Your task to perform on an android device: Go to sound settings Image 0: 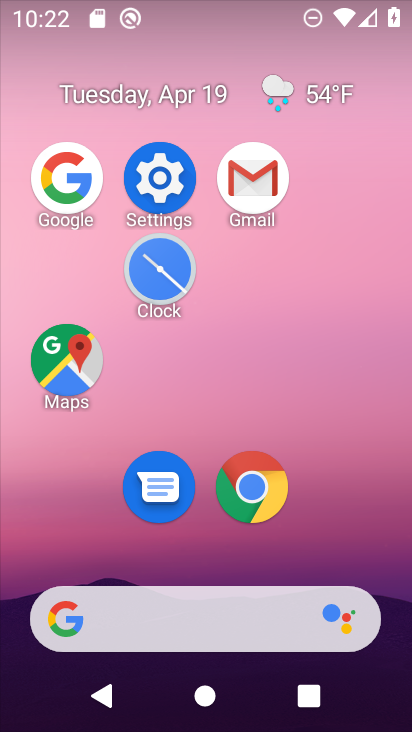
Step 0: click (159, 182)
Your task to perform on an android device: Go to sound settings Image 1: 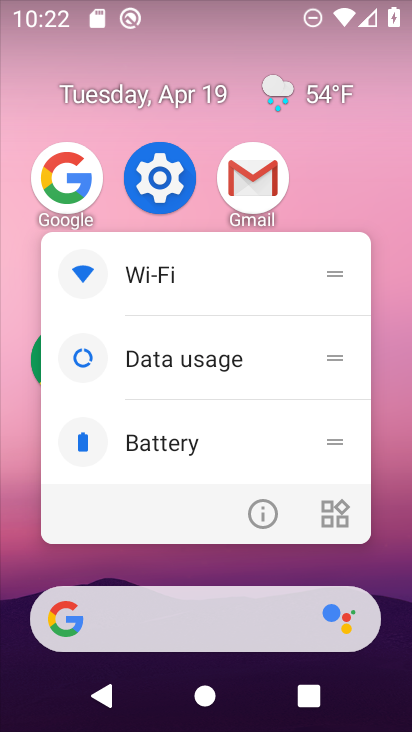
Step 1: click (159, 182)
Your task to perform on an android device: Go to sound settings Image 2: 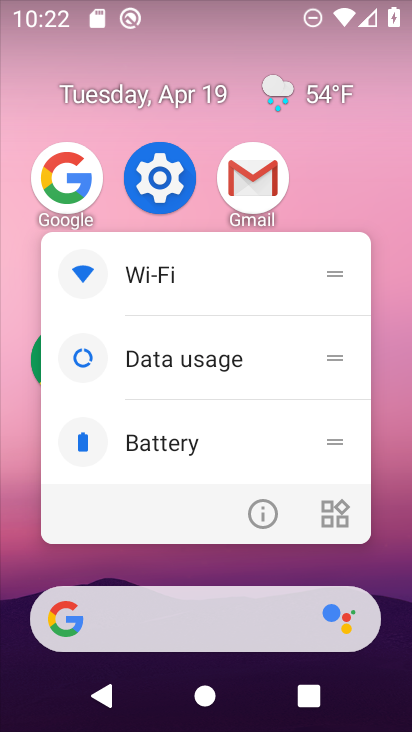
Step 2: click (159, 182)
Your task to perform on an android device: Go to sound settings Image 3: 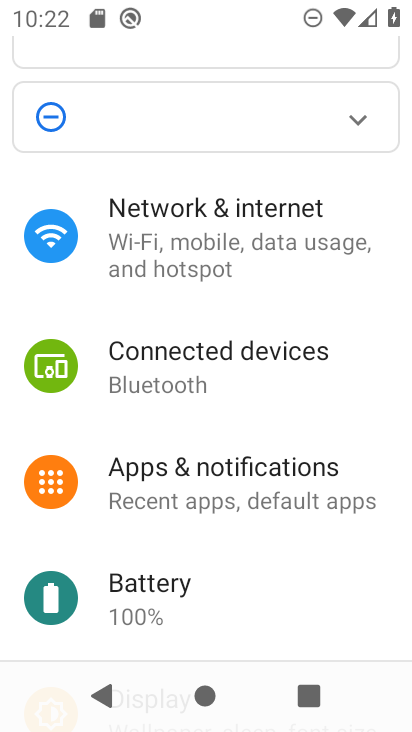
Step 3: drag from (212, 532) to (235, 203)
Your task to perform on an android device: Go to sound settings Image 4: 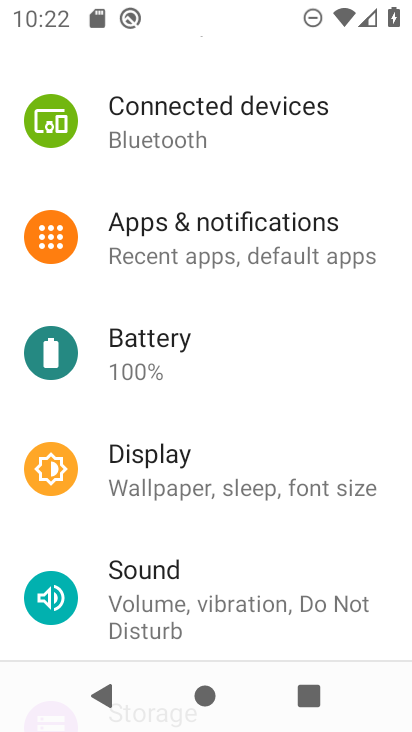
Step 4: click (200, 614)
Your task to perform on an android device: Go to sound settings Image 5: 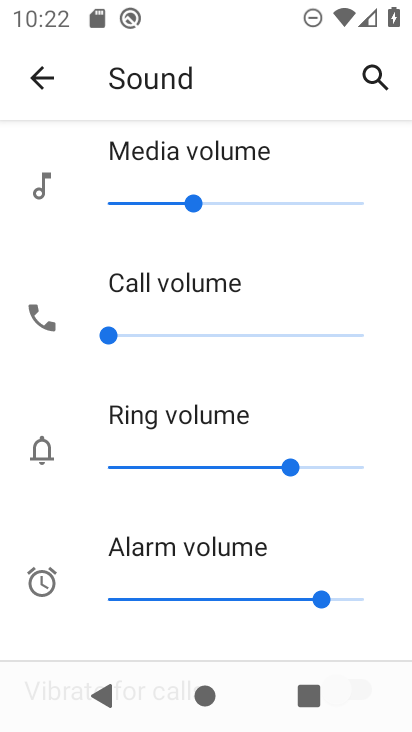
Step 5: task complete